Your task to perform on an android device: manage bookmarks in the chrome app Image 0: 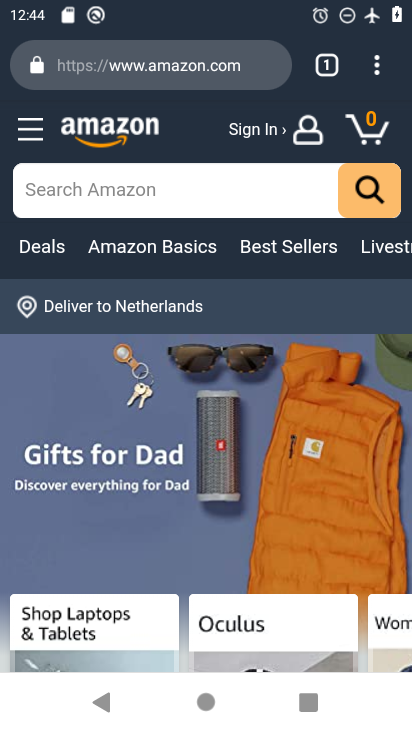
Step 0: press home button
Your task to perform on an android device: manage bookmarks in the chrome app Image 1: 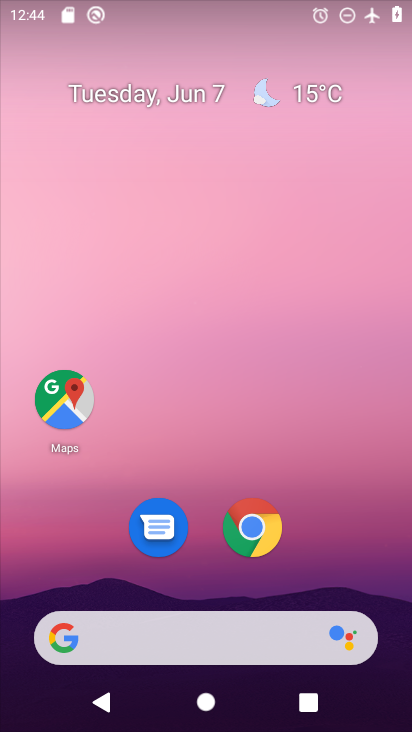
Step 1: drag from (357, 526) to (356, 87)
Your task to perform on an android device: manage bookmarks in the chrome app Image 2: 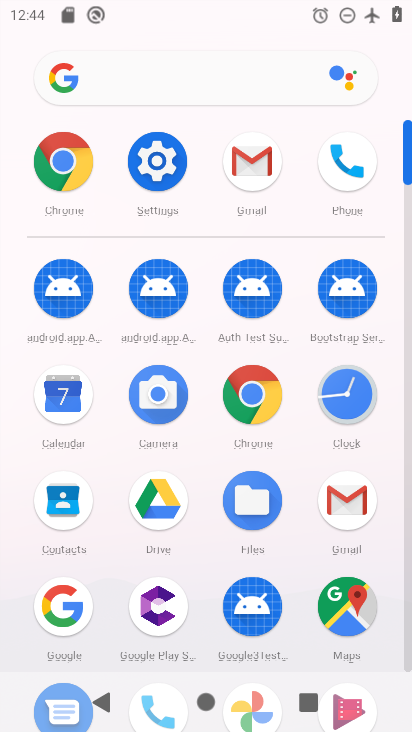
Step 2: click (267, 423)
Your task to perform on an android device: manage bookmarks in the chrome app Image 3: 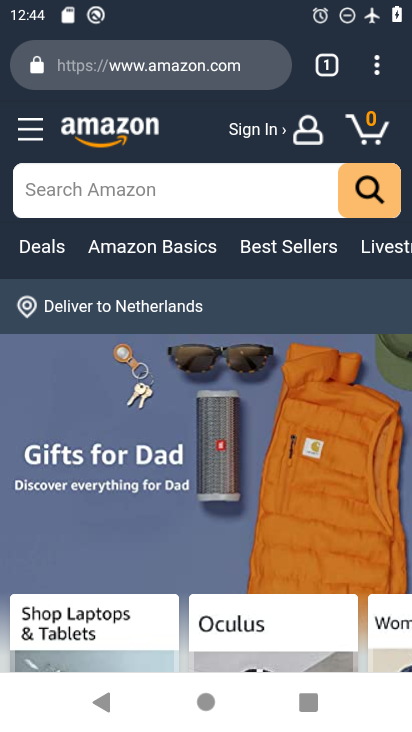
Step 3: click (378, 79)
Your task to perform on an android device: manage bookmarks in the chrome app Image 4: 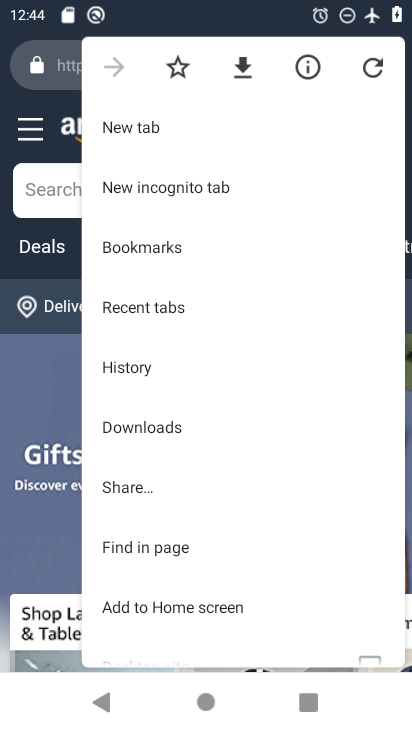
Step 4: click (161, 257)
Your task to perform on an android device: manage bookmarks in the chrome app Image 5: 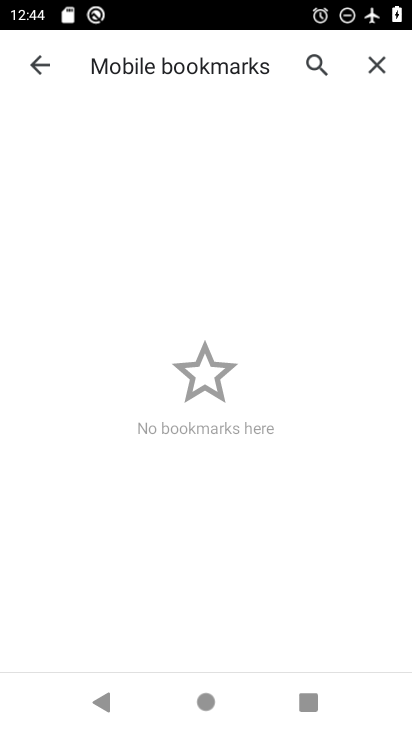
Step 5: task complete